Your task to perform on an android device: Search for vegetarian restaurants on Maps Image 0: 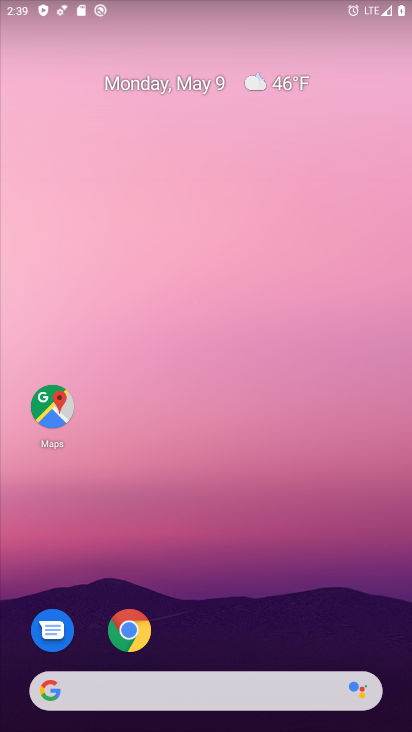
Step 0: click (49, 408)
Your task to perform on an android device: Search for vegetarian restaurants on Maps Image 1: 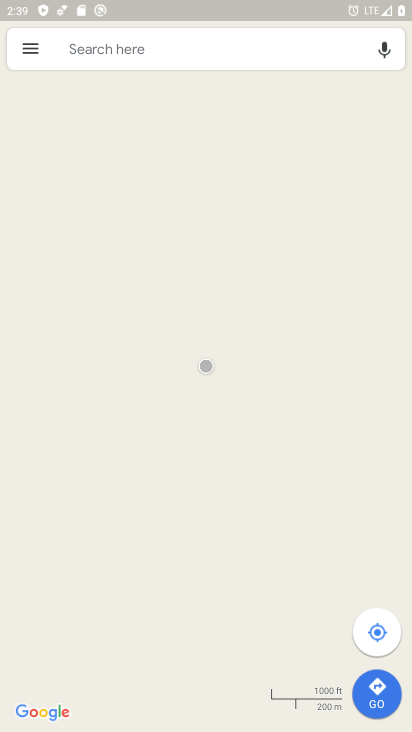
Step 1: click (129, 43)
Your task to perform on an android device: Search for vegetarian restaurants on Maps Image 2: 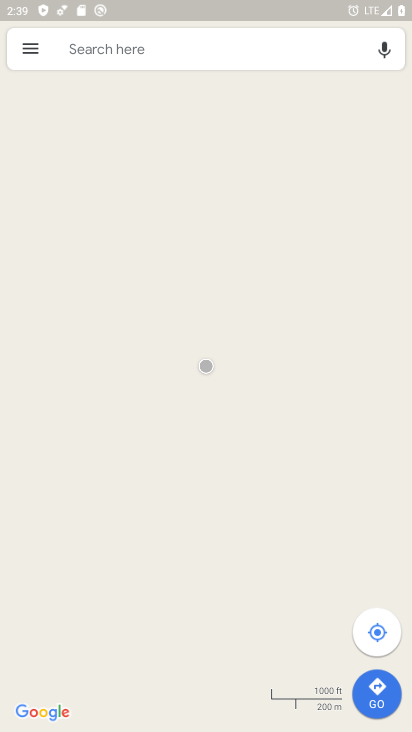
Step 2: click (129, 43)
Your task to perform on an android device: Search for vegetarian restaurants on Maps Image 3: 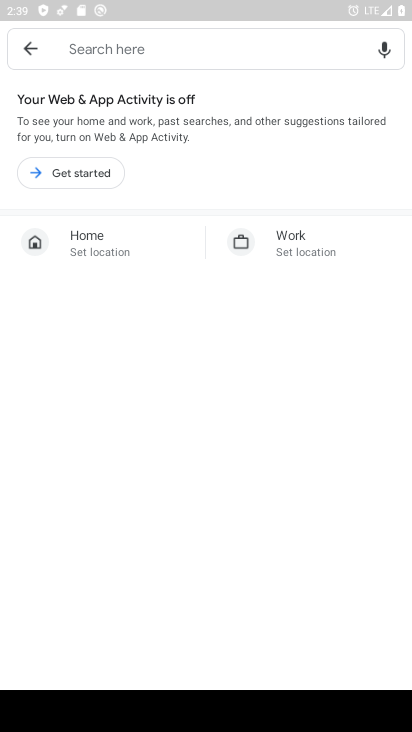
Step 3: type "vegetarian restaurants"
Your task to perform on an android device: Search for vegetarian restaurants on Maps Image 4: 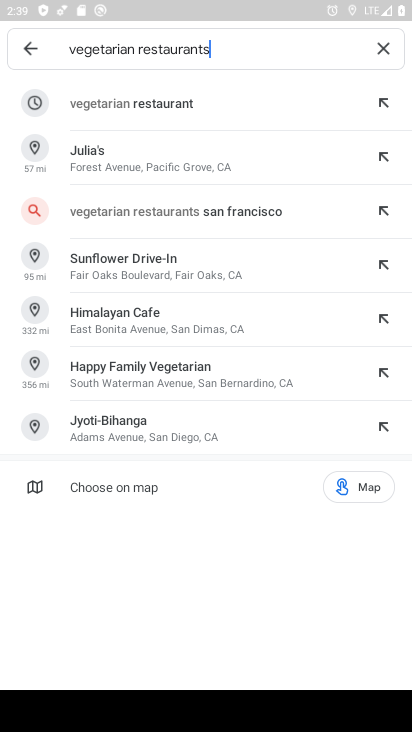
Step 4: click (141, 99)
Your task to perform on an android device: Search for vegetarian restaurants on Maps Image 5: 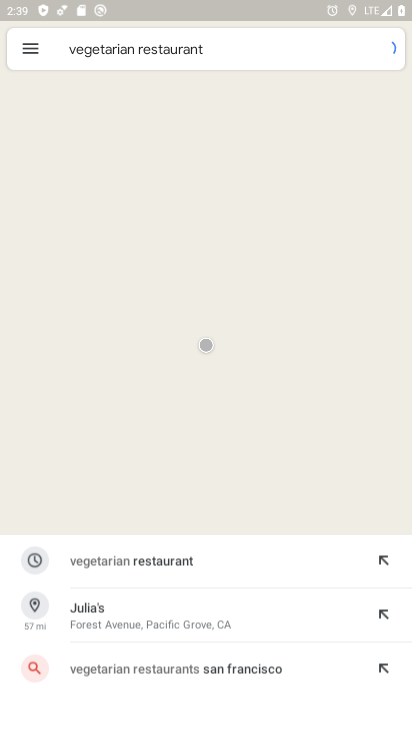
Step 5: click (141, 99)
Your task to perform on an android device: Search for vegetarian restaurants on Maps Image 6: 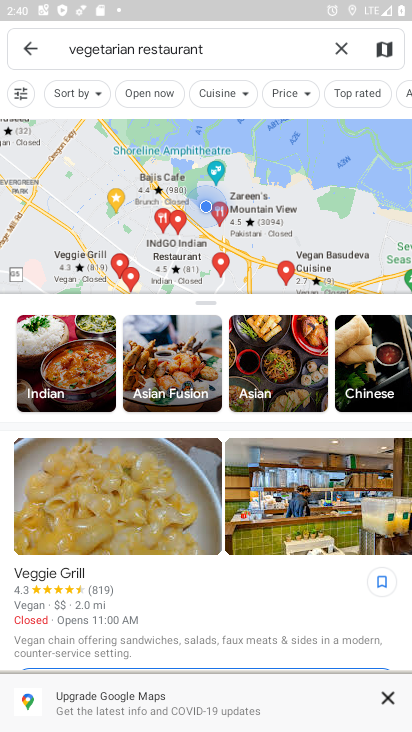
Step 6: task complete